Your task to perform on an android device: turn on wifi Image 0: 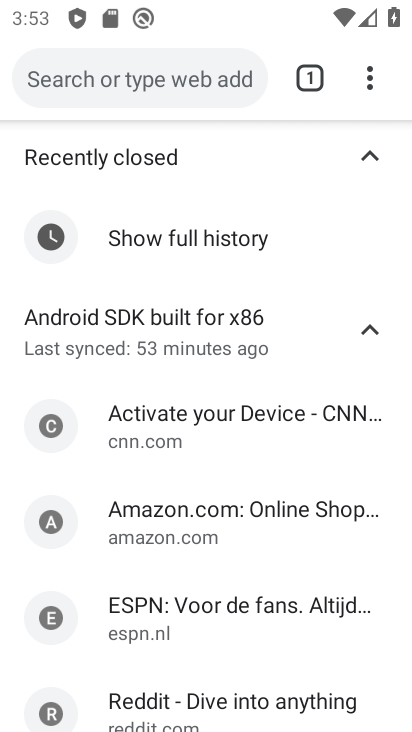
Step 0: press home button
Your task to perform on an android device: turn on wifi Image 1: 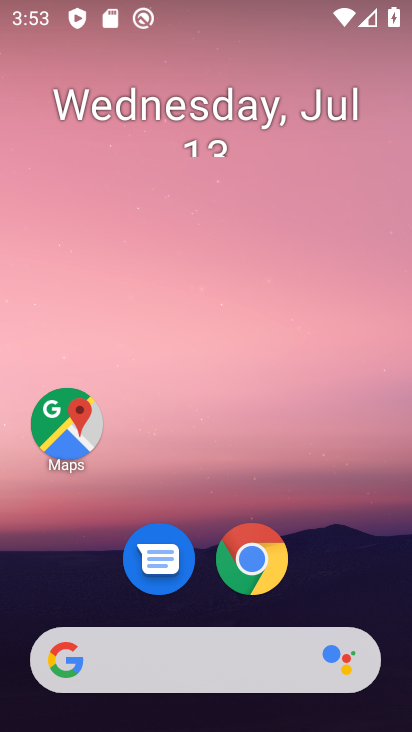
Step 1: drag from (221, 661) to (351, 75)
Your task to perform on an android device: turn on wifi Image 2: 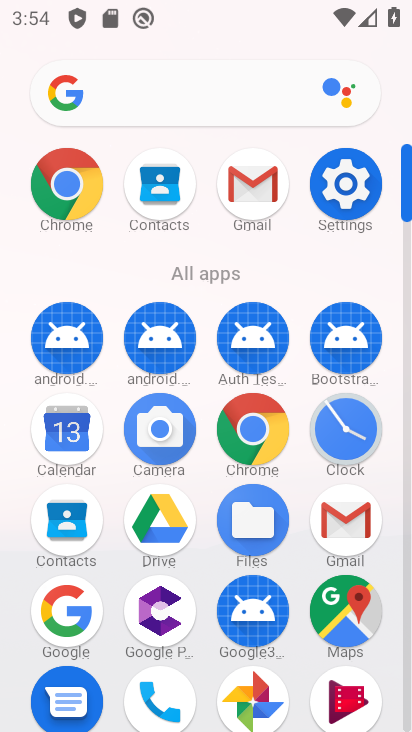
Step 2: click (341, 203)
Your task to perform on an android device: turn on wifi Image 3: 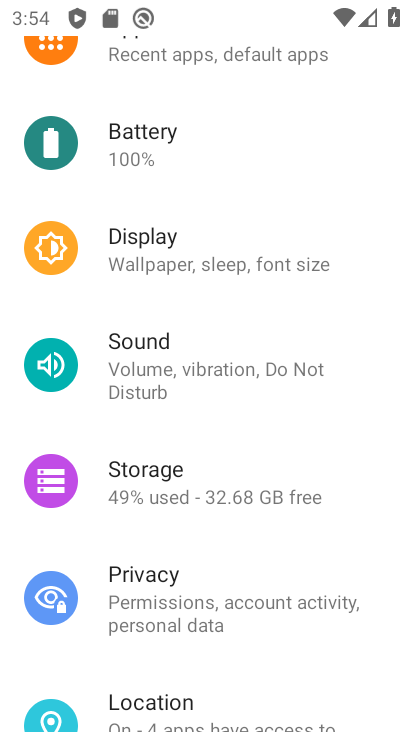
Step 3: drag from (162, 273) to (97, 661)
Your task to perform on an android device: turn on wifi Image 4: 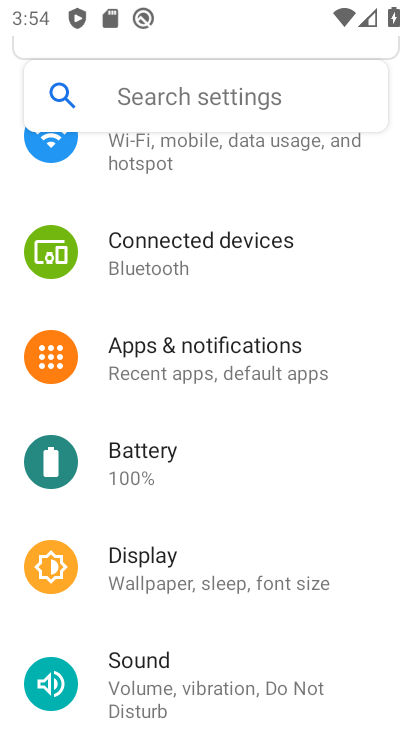
Step 4: drag from (154, 220) to (204, 725)
Your task to perform on an android device: turn on wifi Image 5: 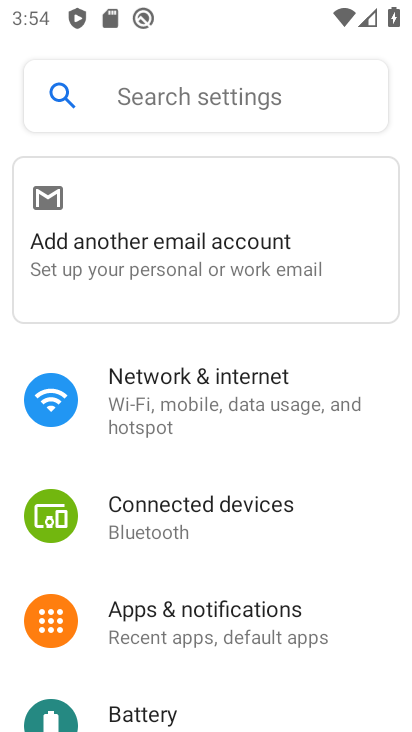
Step 5: click (237, 390)
Your task to perform on an android device: turn on wifi Image 6: 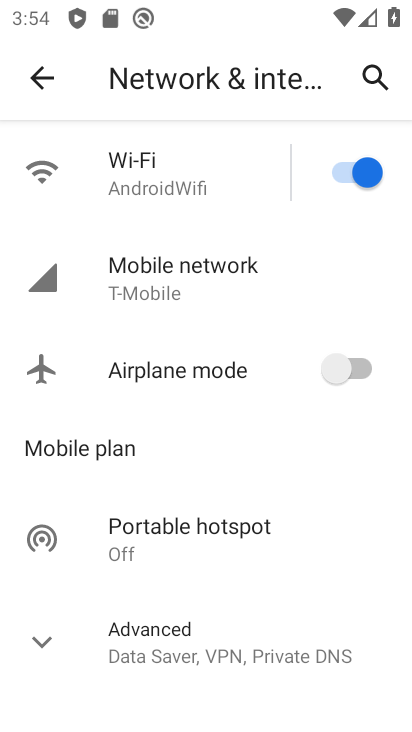
Step 6: task complete